Your task to perform on an android device: Go to Yahoo.com Image 0: 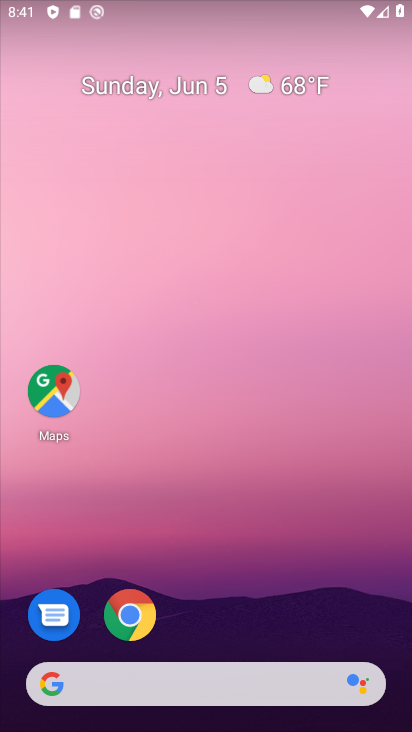
Step 0: click (138, 628)
Your task to perform on an android device: Go to Yahoo.com Image 1: 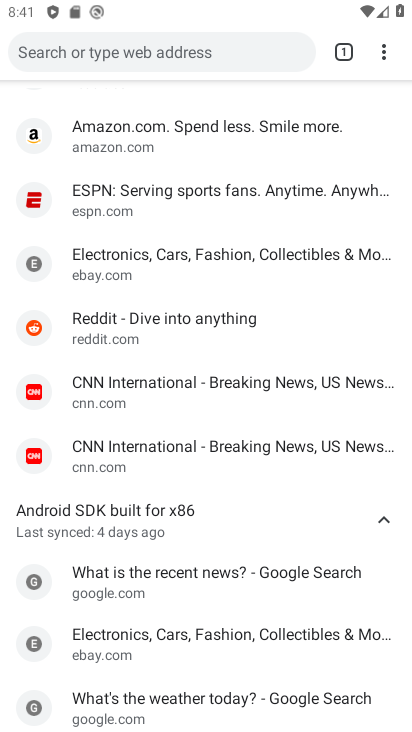
Step 1: click (344, 60)
Your task to perform on an android device: Go to Yahoo.com Image 2: 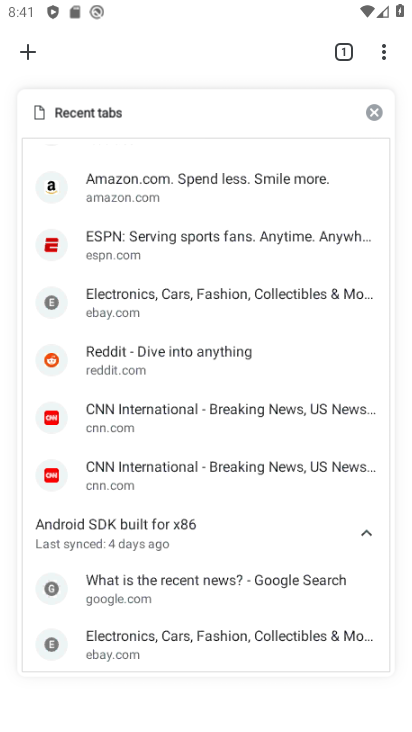
Step 2: click (382, 113)
Your task to perform on an android device: Go to Yahoo.com Image 3: 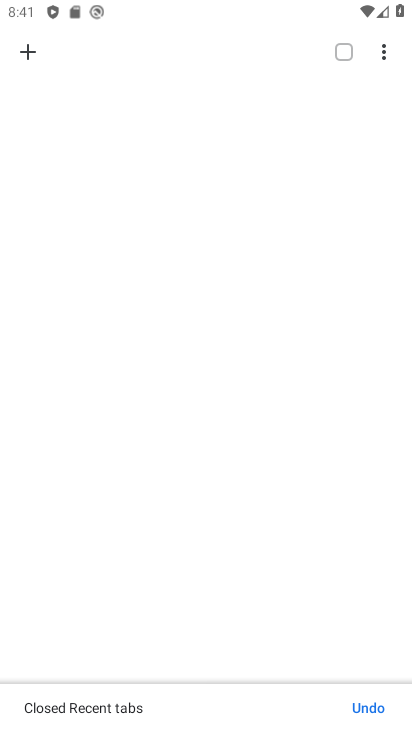
Step 3: click (28, 46)
Your task to perform on an android device: Go to Yahoo.com Image 4: 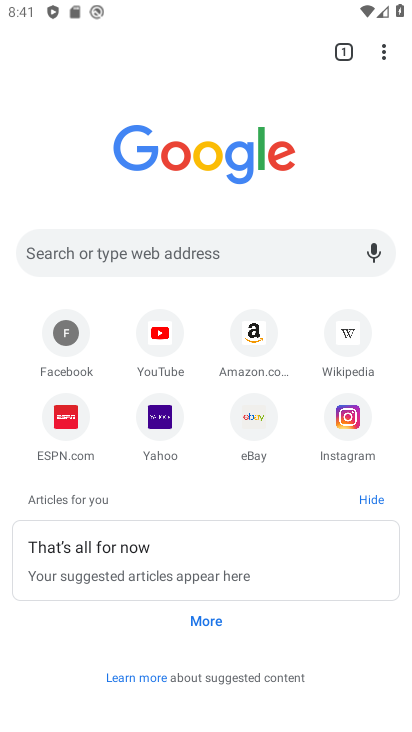
Step 4: click (150, 437)
Your task to perform on an android device: Go to Yahoo.com Image 5: 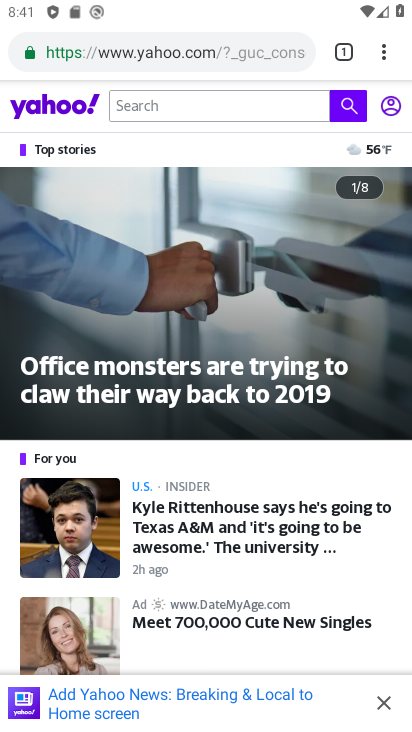
Step 5: task complete